Your task to perform on an android device: Turn off the flashlight Image 0: 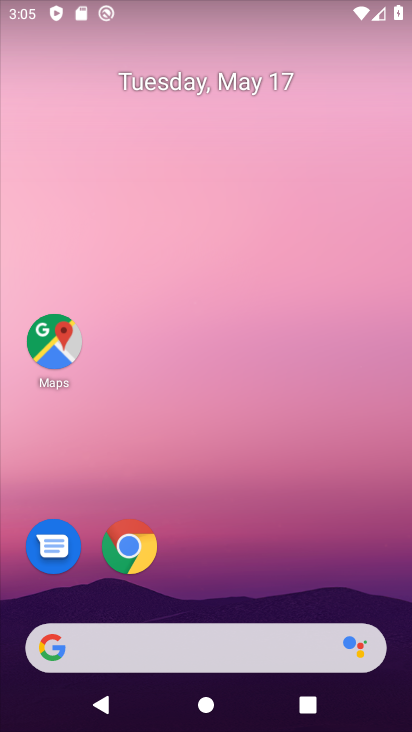
Step 0: drag from (271, 555) to (226, 122)
Your task to perform on an android device: Turn off the flashlight Image 1: 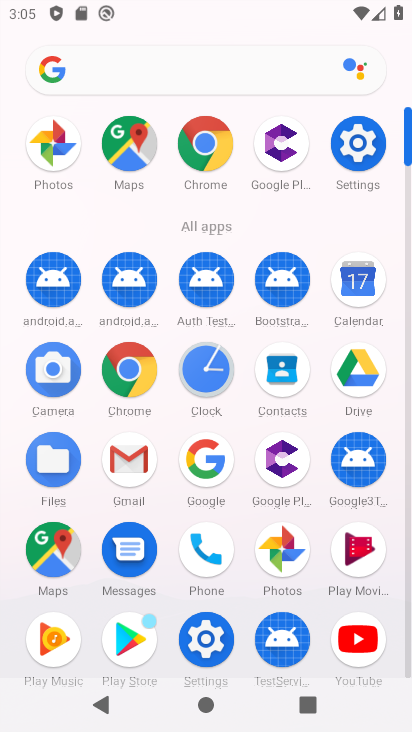
Step 1: click (355, 149)
Your task to perform on an android device: Turn off the flashlight Image 2: 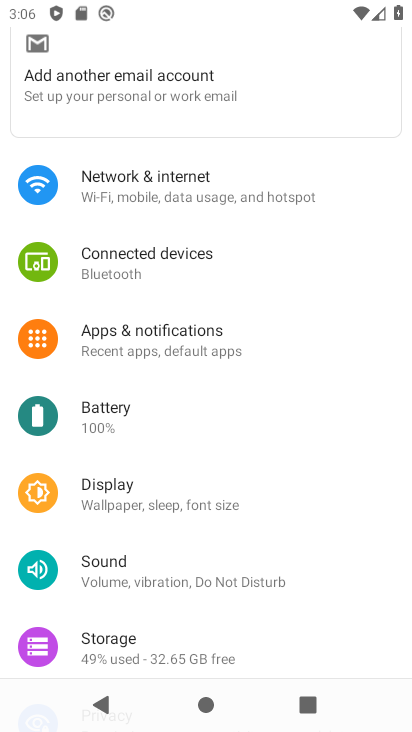
Step 2: click (155, 509)
Your task to perform on an android device: Turn off the flashlight Image 3: 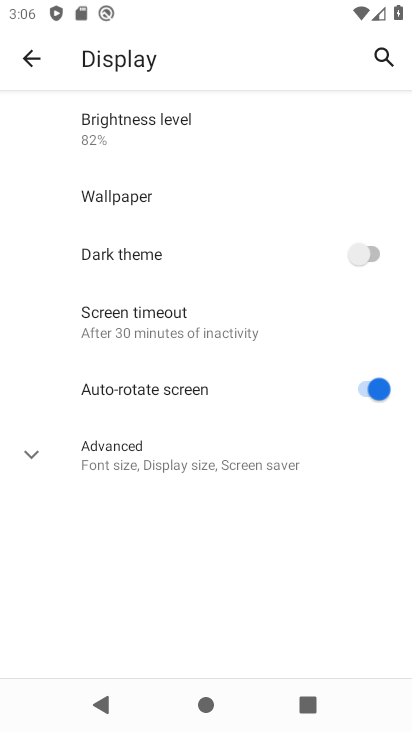
Step 3: click (177, 339)
Your task to perform on an android device: Turn off the flashlight Image 4: 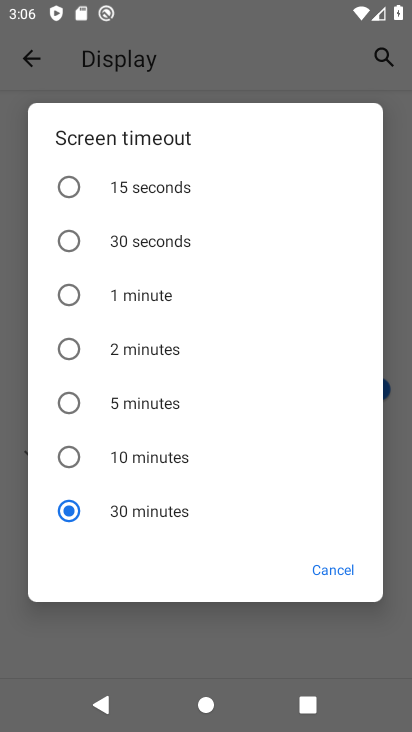
Step 4: click (350, 566)
Your task to perform on an android device: Turn off the flashlight Image 5: 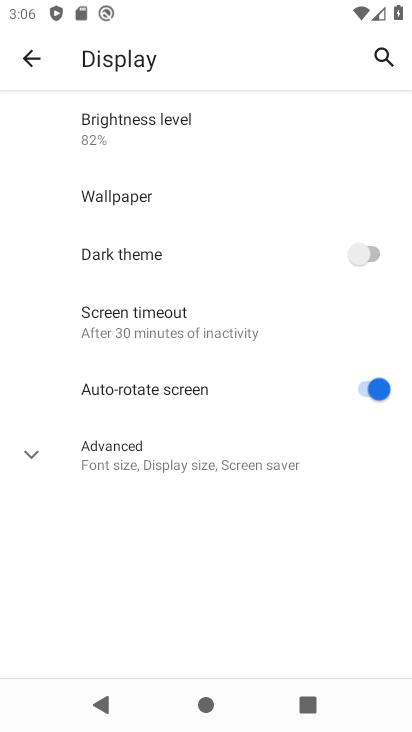
Step 5: task complete